Your task to perform on an android device: turn off javascript in the chrome app Image 0: 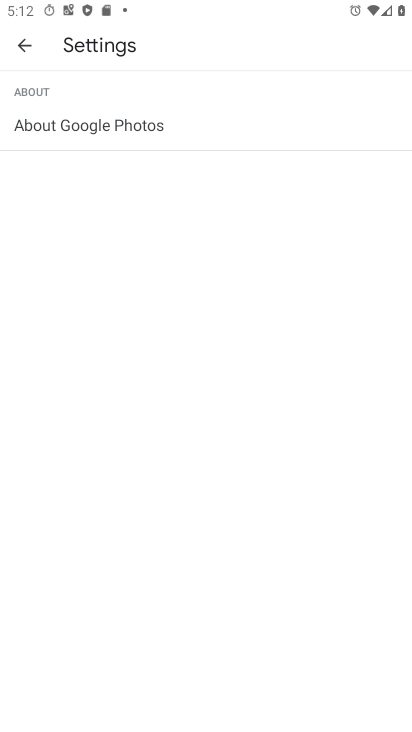
Step 0: press home button
Your task to perform on an android device: turn off javascript in the chrome app Image 1: 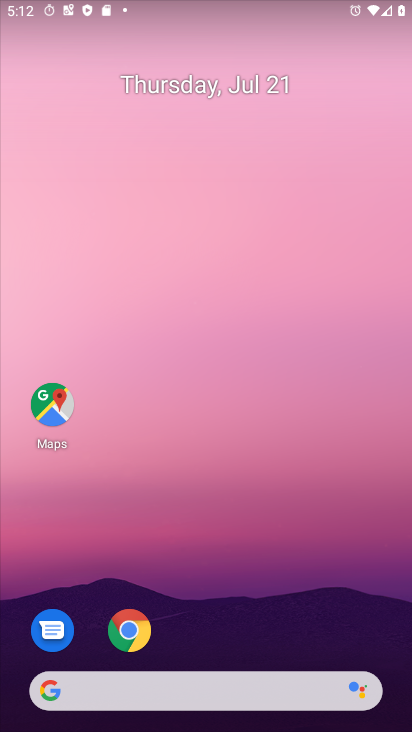
Step 1: click (127, 629)
Your task to perform on an android device: turn off javascript in the chrome app Image 2: 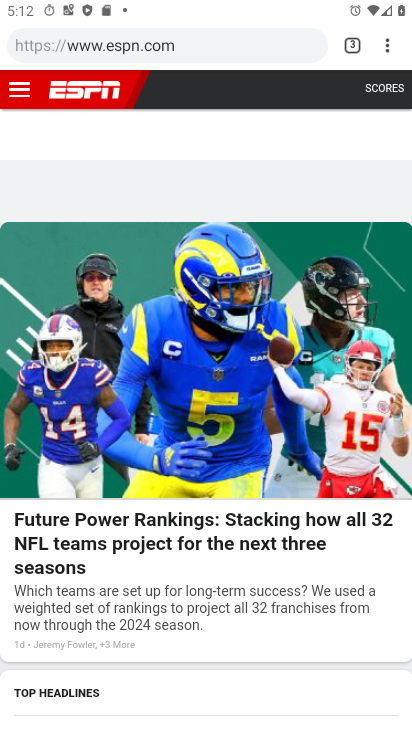
Step 2: click (386, 44)
Your task to perform on an android device: turn off javascript in the chrome app Image 3: 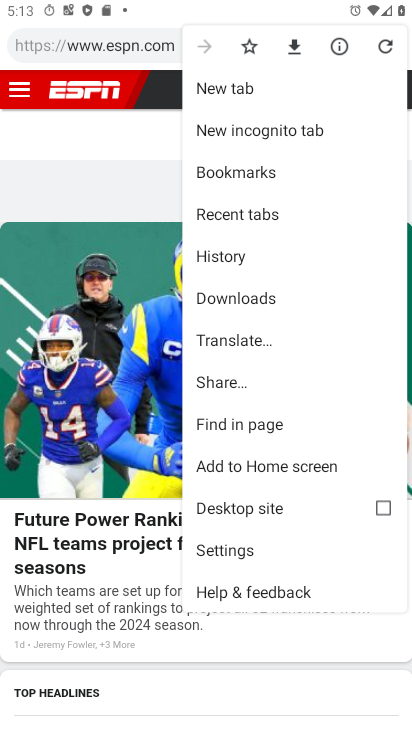
Step 3: click (224, 552)
Your task to perform on an android device: turn off javascript in the chrome app Image 4: 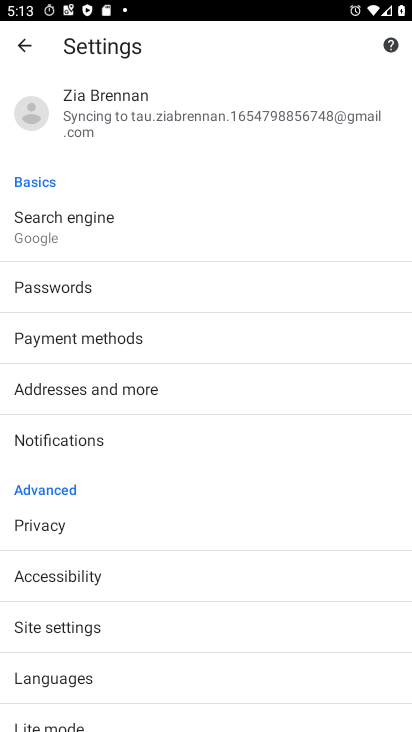
Step 4: click (51, 626)
Your task to perform on an android device: turn off javascript in the chrome app Image 5: 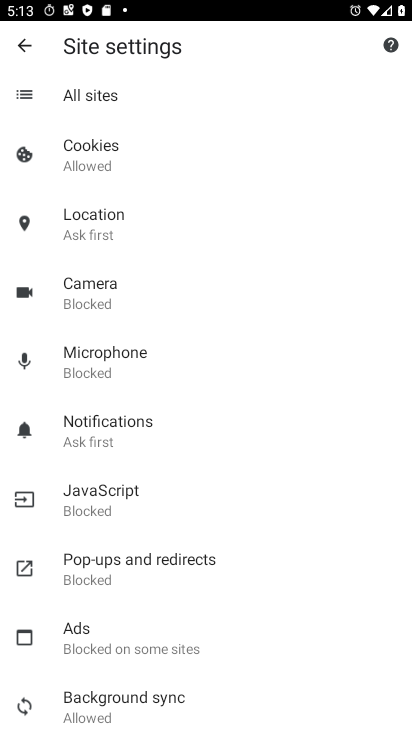
Step 5: click (107, 493)
Your task to perform on an android device: turn off javascript in the chrome app Image 6: 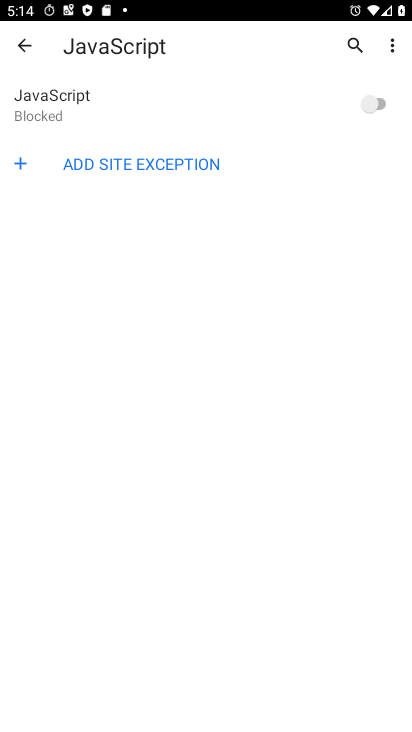
Step 6: task complete